Your task to perform on an android device: make emails show in primary in the gmail app Image 0: 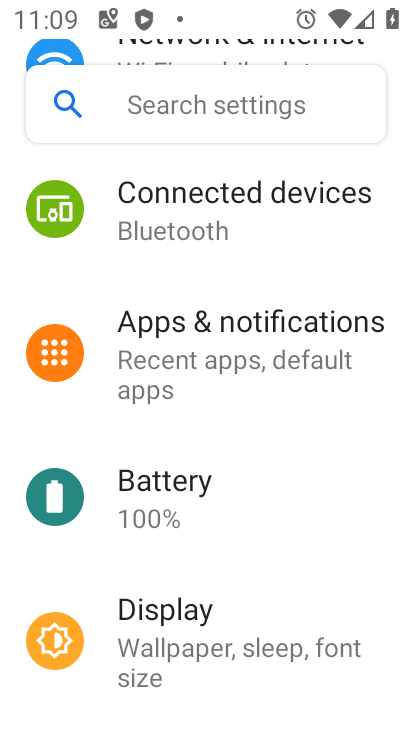
Step 0: press home button
Your task to perform on an android device: make emails show in primary in the gmail app Image 1: 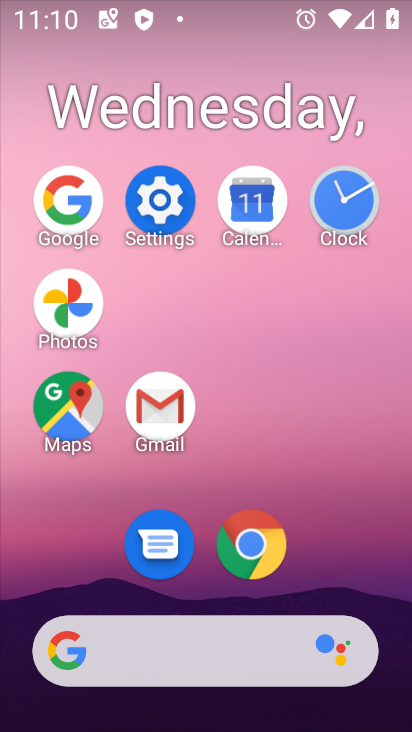
Step 1: click (162, 402)
Your task to perform on an android device: make emails show in primary in the gmail app Image 2: 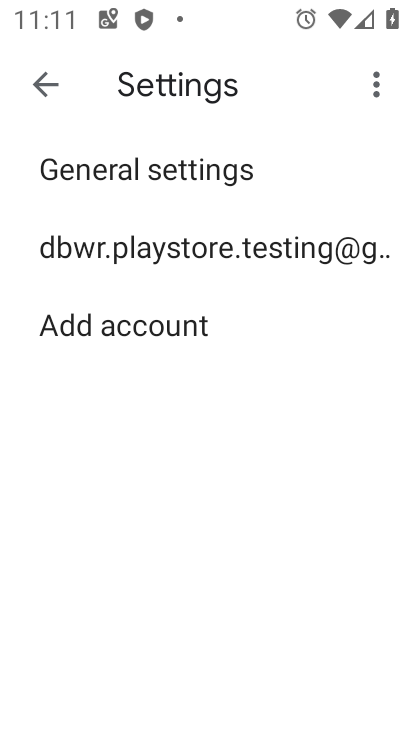
Step 2: click (155, 251)
Your task to perform on an android device: make emails show in primary in the gmail app Image 3: 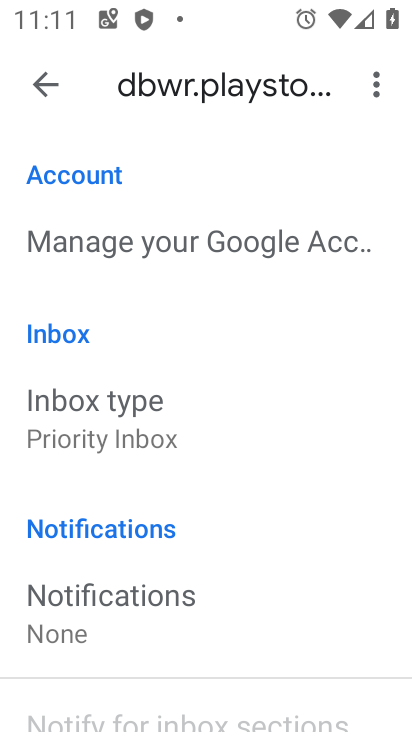
Step 3: click (190, 419)
Your task to perform on an android device: make emails show in primary in the gmail app Image 4: 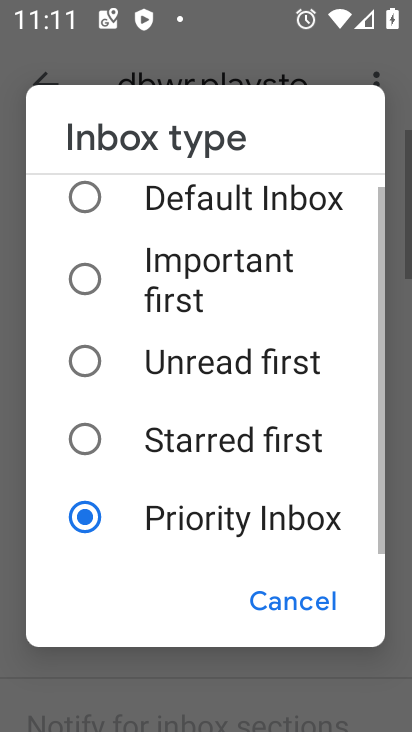
Step 4: click (154, 184)
Your task to perform on an android device: make emails show in primary in the gmail app Image 5: 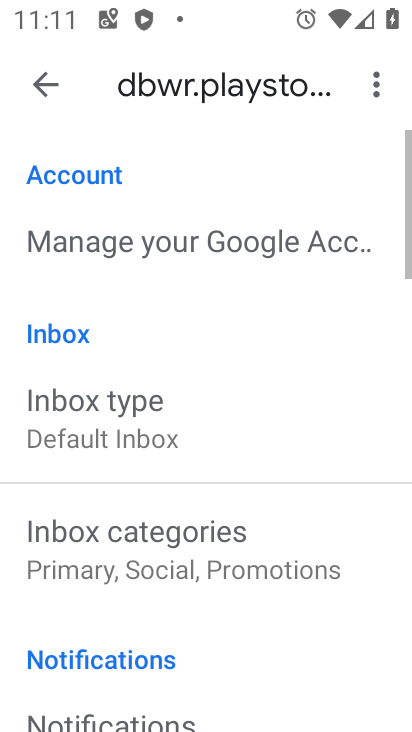
Step 5: click (217, 537)
Your task to perform on an android device: make emails show in primary in the gmail app Image 6: 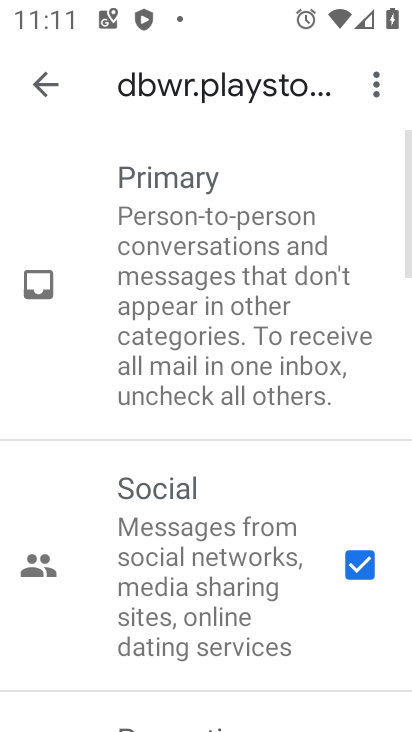
Step 6: click (336, 581)
Your task to perform on an android device: make emails show in primary in the gmail app Image 7: 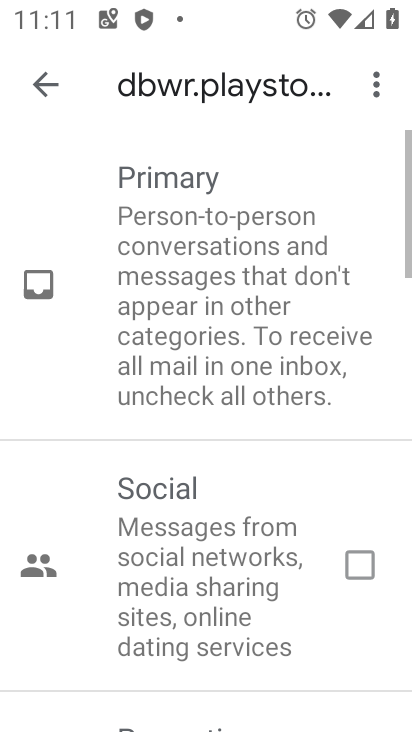
Step 7: drag from (212, 569) to (223, 163)
Your task to perform on an android device: make emails show in primary in the gmail app Image 8: 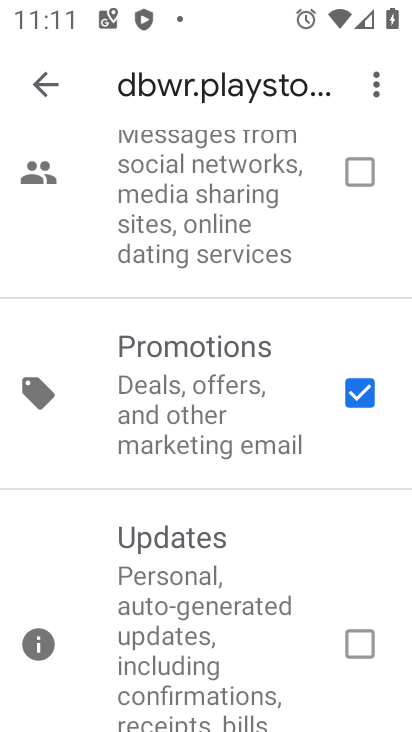
Step 8: click (341, 375)
Your task to perform on an android device: make emails show in primary in the gmail app Image 9: 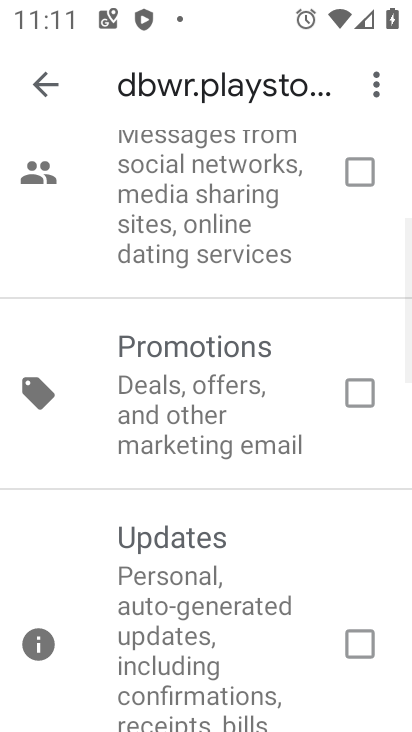
Step 9: task complete